Your task to perform on an android device: Open Google Chrome and click the shortcut for Amazon.com Image 0: 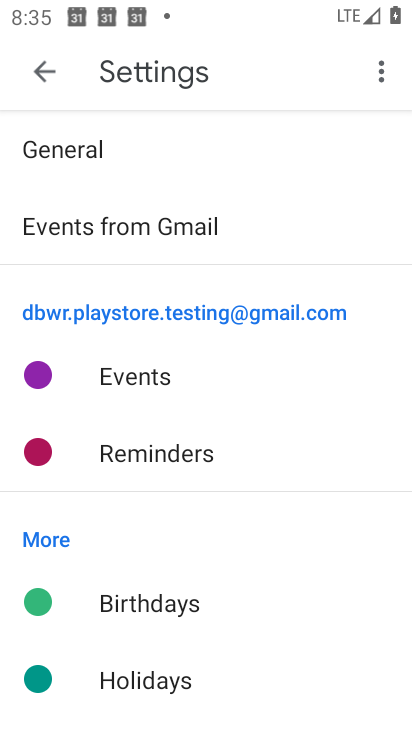
Step 0: press home button
Your task to perform on an android device: Open Google Chrome and click the shortcut for Amazon.com Image 1: 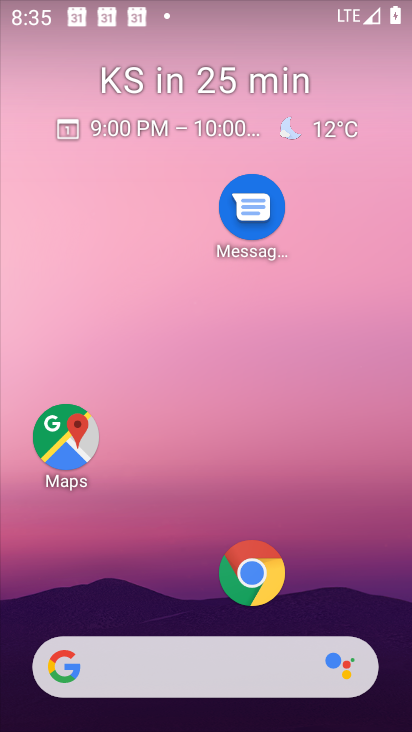
Step 1: click (252, 575)
Your task to perform on an android device: Open Google Chrome and click the shortcut for Amazon.com Image 2: 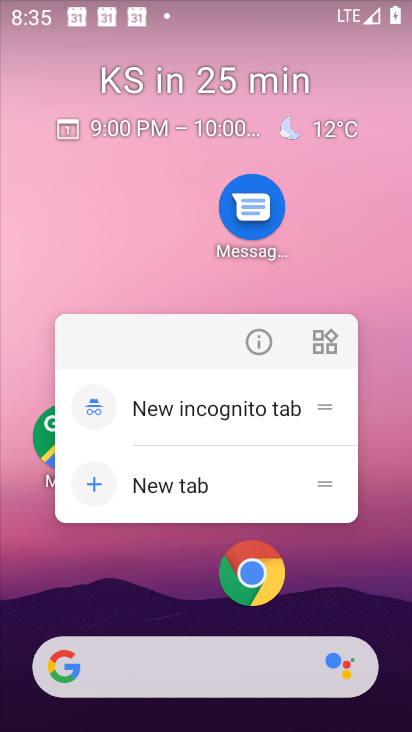
Step 2: click (252, 575)
Your task to perform on an android device: Open Google Chrome and click the shortcut for Amazon.com Image 3: 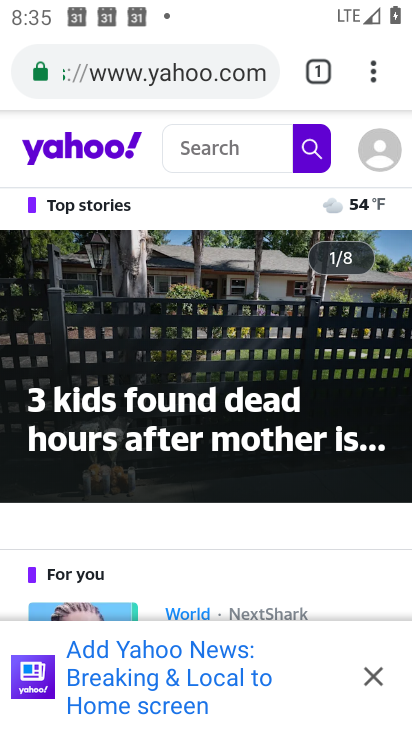
Step 3: press back button
Your task to perform on an android device: Open Google Chrome and click the shortcut for Amazon.com Image 4: 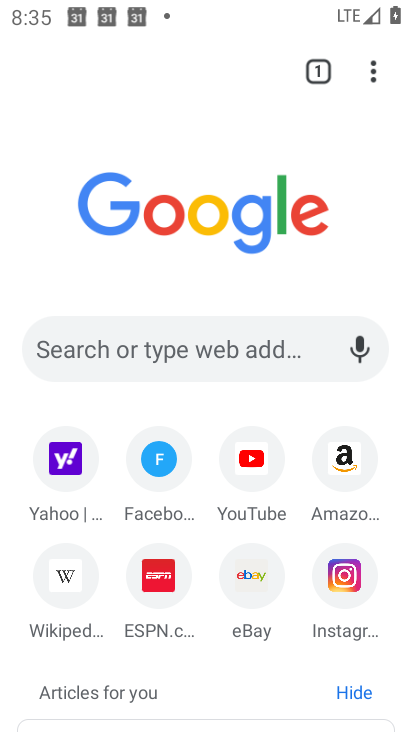
Step 4: click (342, 459)
Your task to perform on an android device: Open Google Chrome and click the shortcut for Amazon.com Image 5: 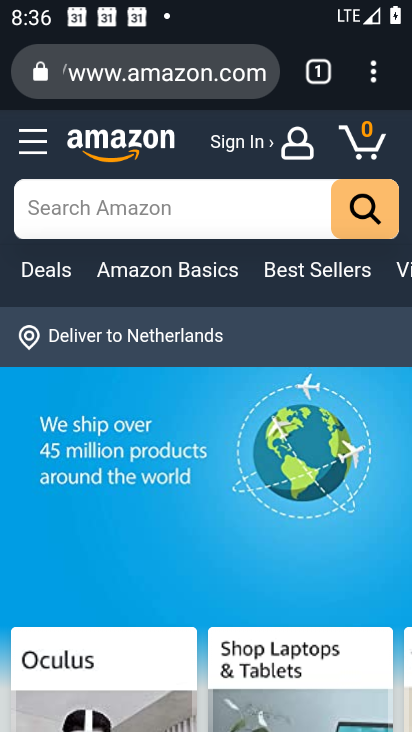
Step 5: task complete